Your task to perform on an android device: When is my next appointment? Image 0: 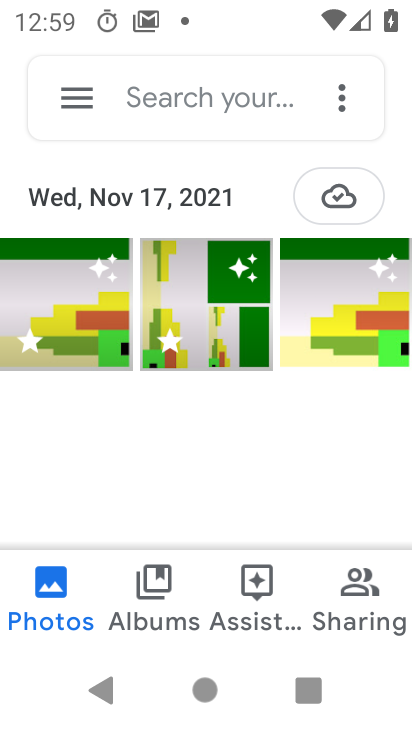
Step 0: press home button
Your task to perform on an android device: When is my next appointment? Image 1: 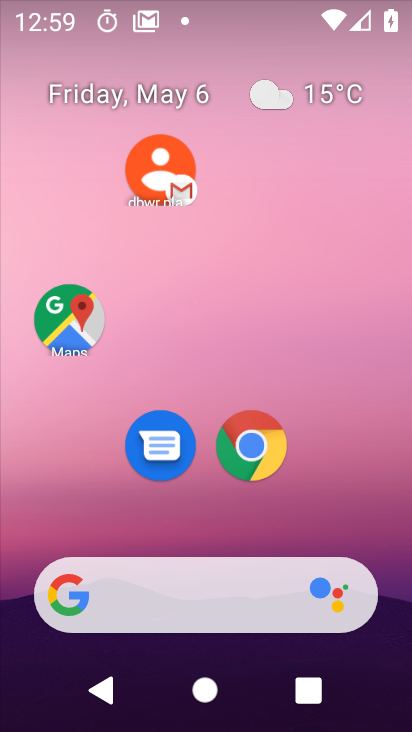
Step 1: drag from (341, 537) to (69, 74)
Your task to perform on an android device: When is my next appointment? Image 2: 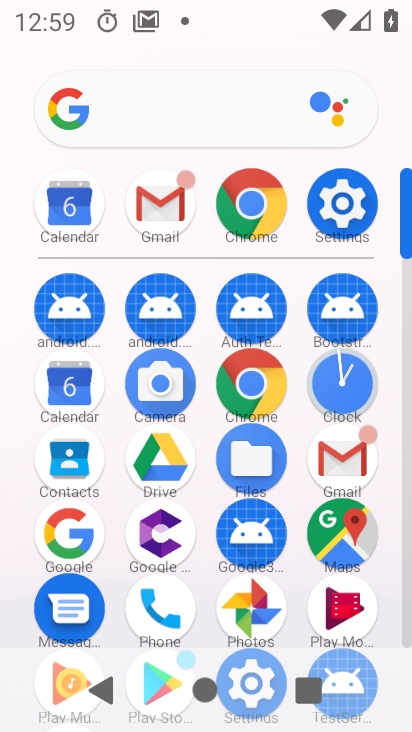
Step 2: click (58, 403)
Your task to perform on an android device: When is my next appointment? Image 3: 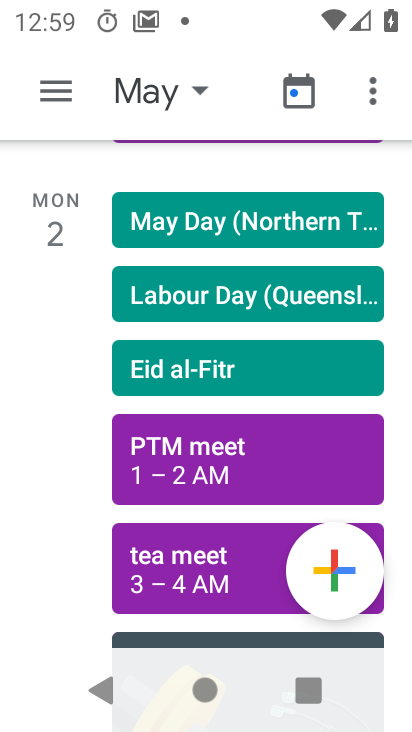
Step 3: drag from (211, 459) to (120, 159)
Your task to perform on an android device: When is my next appointment? Image 4: 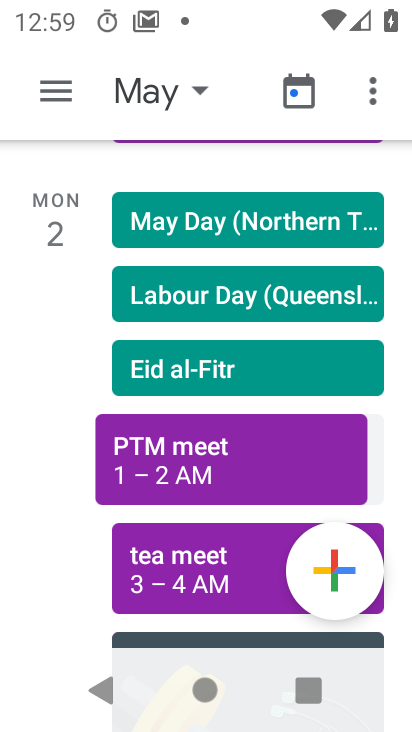
Step 4: drag from (173, 501) to (140, 94)
Your task to perform on an android device: When is my next appointment? Image 5: 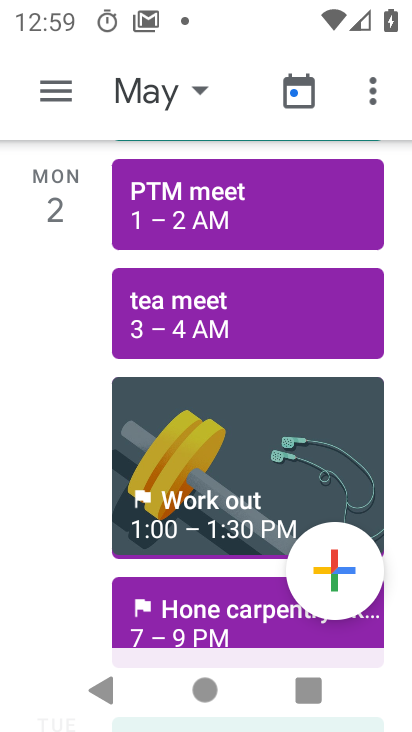
Step 5: drag from (97, 484) to (125, 123)
Your task to perform on an android device: When is my next appointment? Image 6: 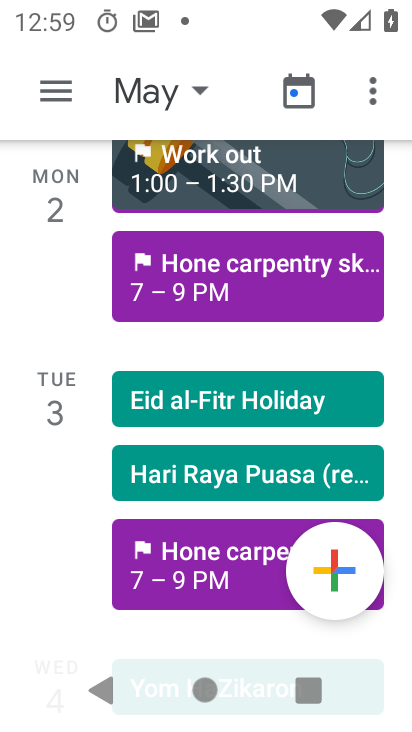
Step 6: drag from (133, 454) to (170, 59)
Your task to perform on an android device: When is my next appointment? Image 7: 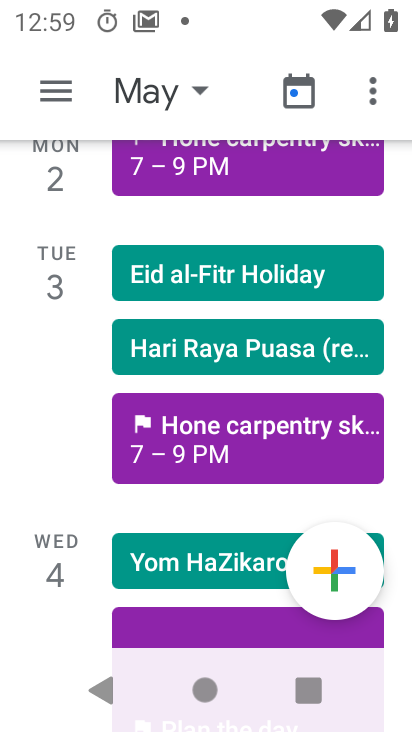
Step 7: drag from (159, 451) to (144, 35)
Your task to perform on an android device: When is my next appointment? Image 8: 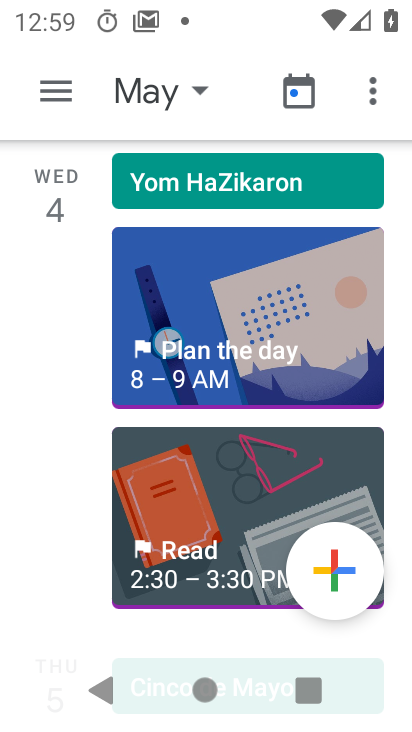
Step 8: drag from (153, 418) to (153, 7)
Your task to perform on an android device: When is my next appointment? Image 9: 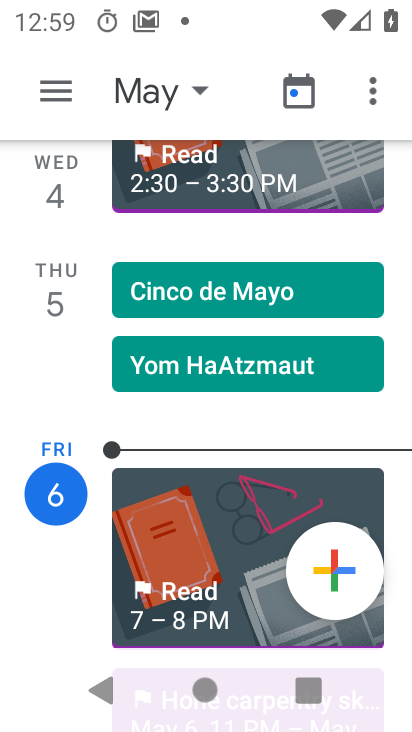
Step 9: drag from (104, 468) to (130, 39)
Your task to perform on an android device: When is my next appointment? Image 10: 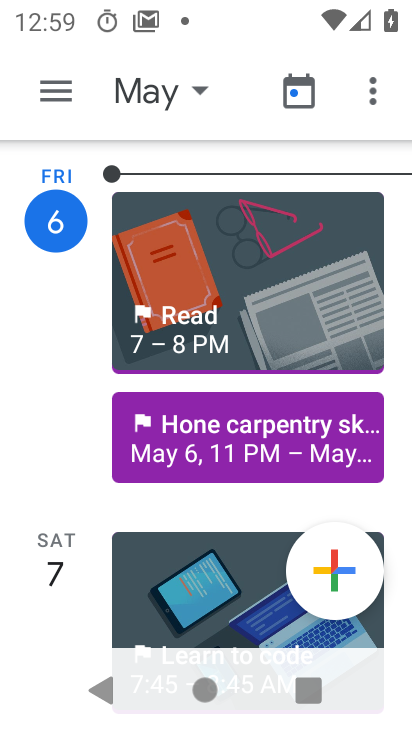
Step 10: click (60, 99)
Your task to perform on an android device: When is my next appointment? Image 11: 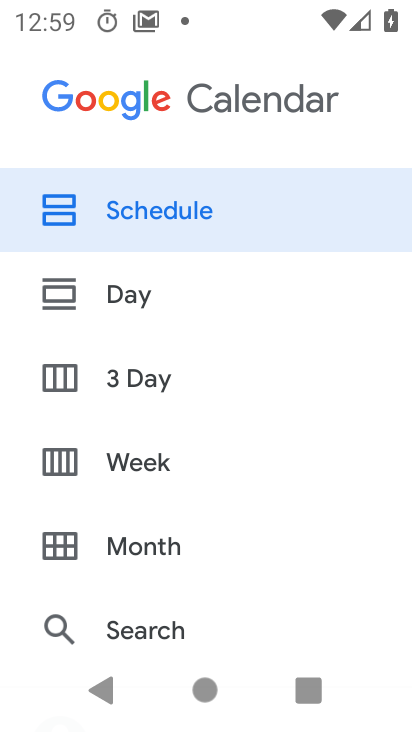
Step 11: drag from (191, 585) to (200, 220)
Your task to perform on an android device: When is my next appointment? Image 12: 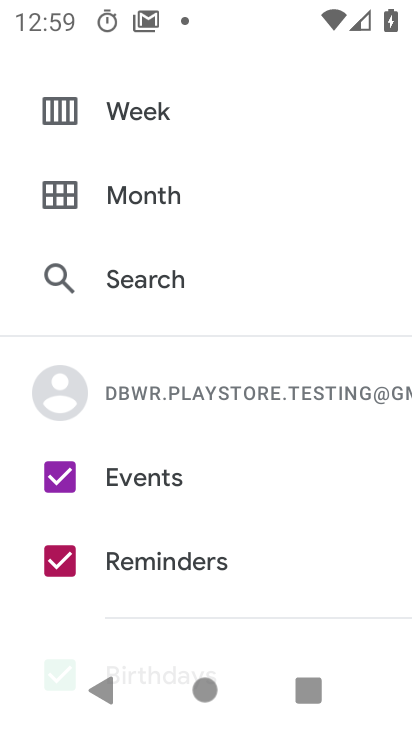
Step 12: drag from (211, 245) to (257, 555)
Your task to perform on an android device: When is my next appointment? Image 13: 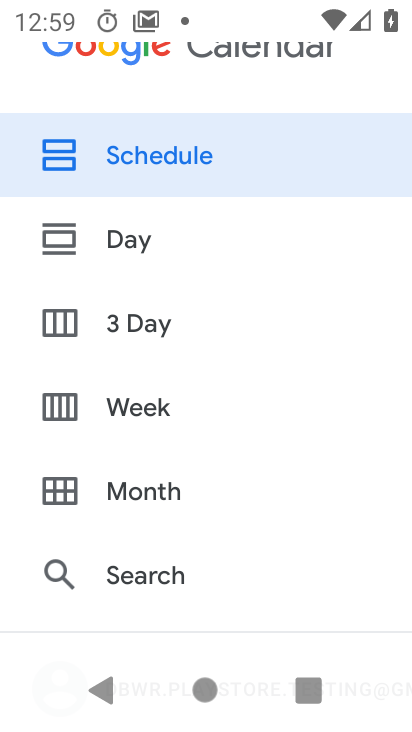
Step 13: drag from (254, 277) to (303, 473)
Your task to perform on an android device: When is my next appointment? Image 14: 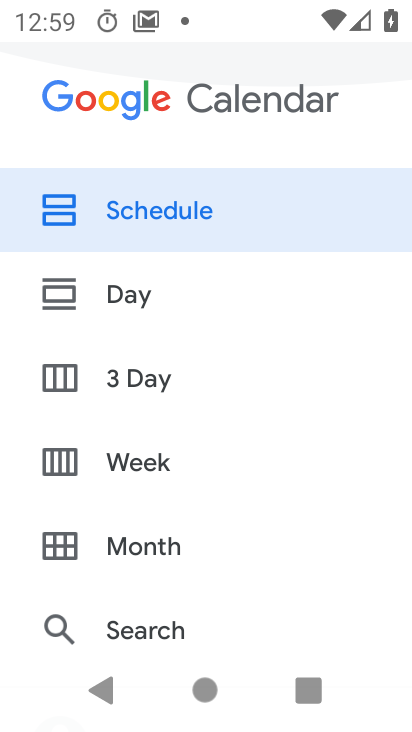
Step 14: drag from (251, 251) to (304, 541)
Your task to perform on an android device: When is my next appointment? Image 15: 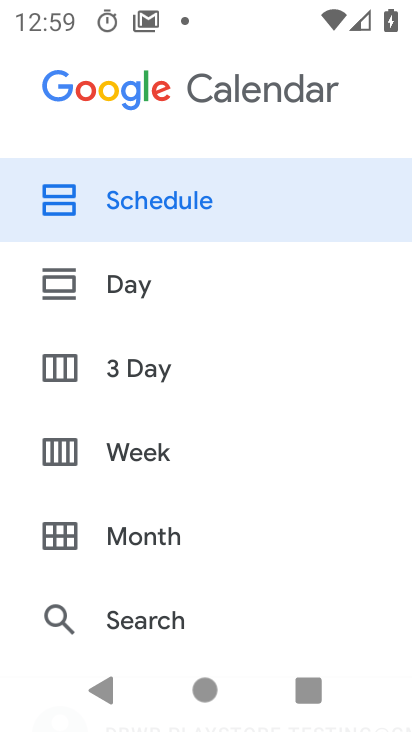
Step 15: click (185, 217)
Your task to perform on an android device: When is my next appointment? Image 16: 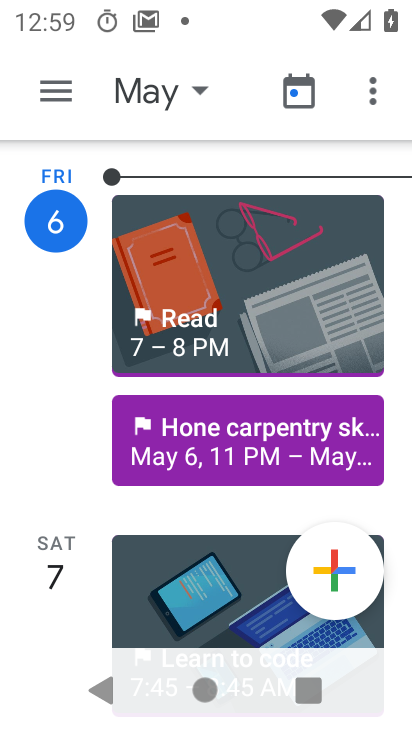
Step 16: task complete